Your task to perform on an android device: Do I have any events this weekend? Image 0: 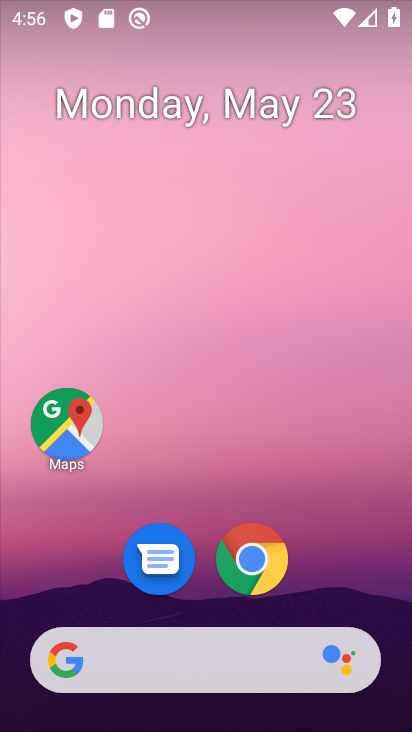
Step 0: drag from (308, 633) to (267, 2)
Your task to perform on an android device: Do I have any events this weekend? Image 1: 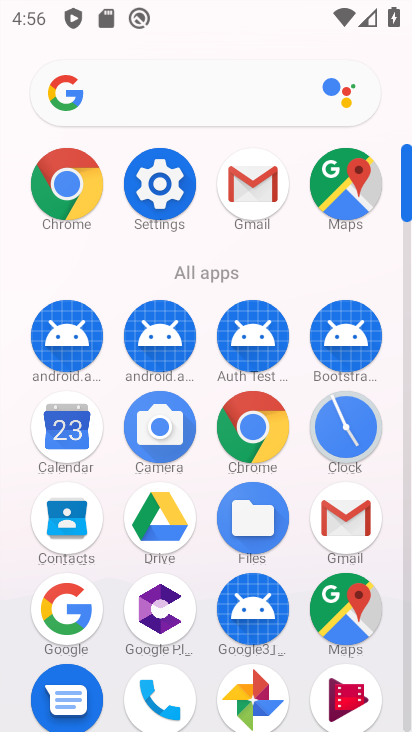
Step 1: drag from (217, 665) to (197, 417)
Your task to perform on an android device: Do I have any events this weekend? Image 2: 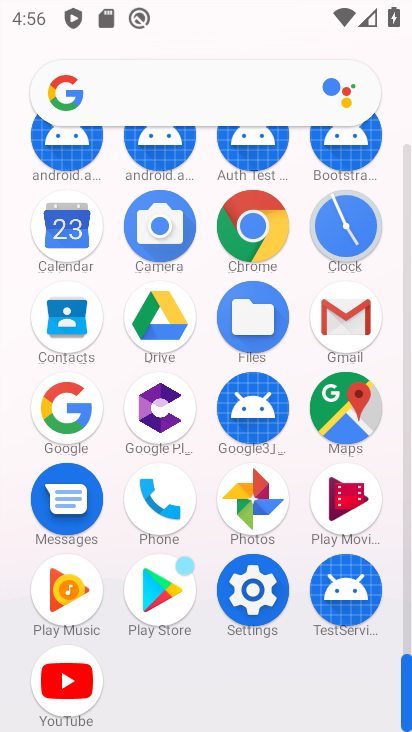
Step 2: click (69, 239)
Your task to perform on an android device: Do I have any events this weekend? Image 3: 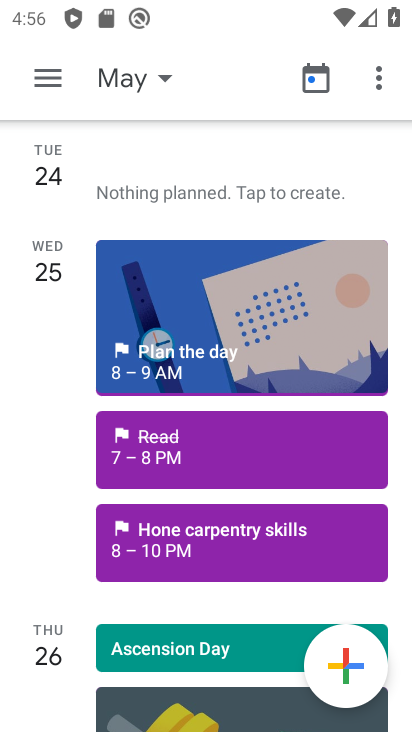
Step 3: click (170, 75)
Your task to perform on an android device: Do I have any events this weekend? Image 4: 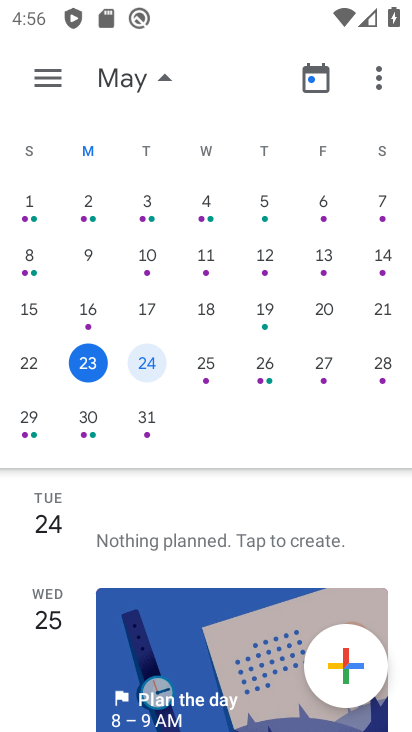
Step 4: click (381, 361)
Your task to perform on an android device: Do I have any events this weekend? Image 5: 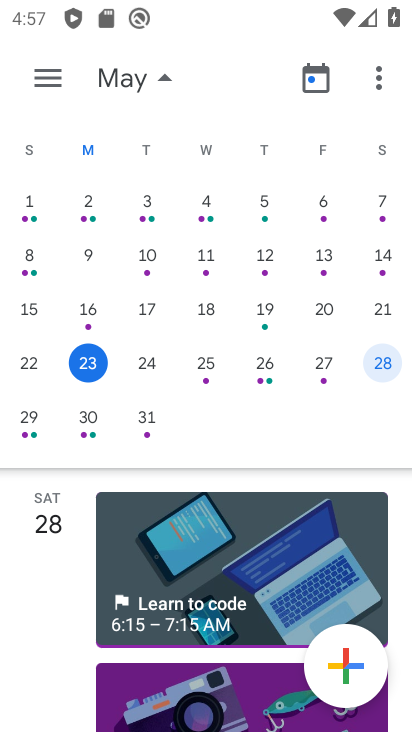
Step 5: task complete